Your task to perform on an android device: Open sound settings Image 0: 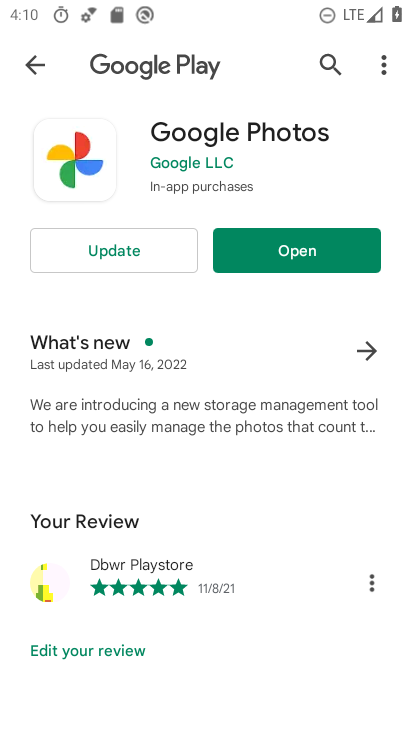
Step 0: press home button
Your task to perform on an android device: Open sound settings Image 1: 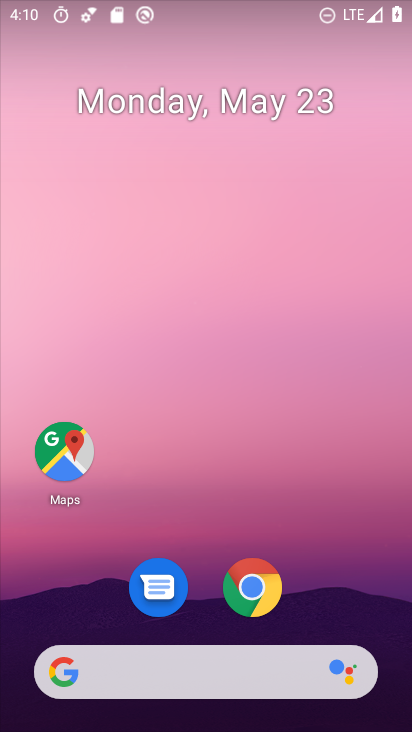
Step 1: drag from (209, 613) to (236, 7)
Your task to perform on an android device: Open sound settings Image 2: 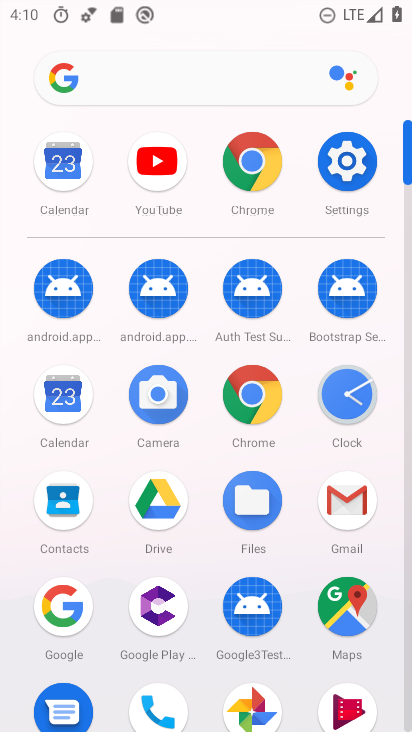
Step 2: click (356, 181)
Your task to perform on an android device: Open sound settings Image 3: 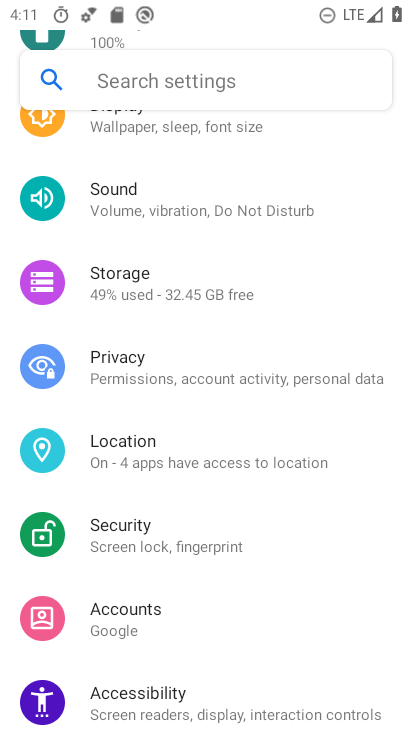
Step 3: click (137, 198)
Your task to perform on an android device: Open sound settings Image 4: 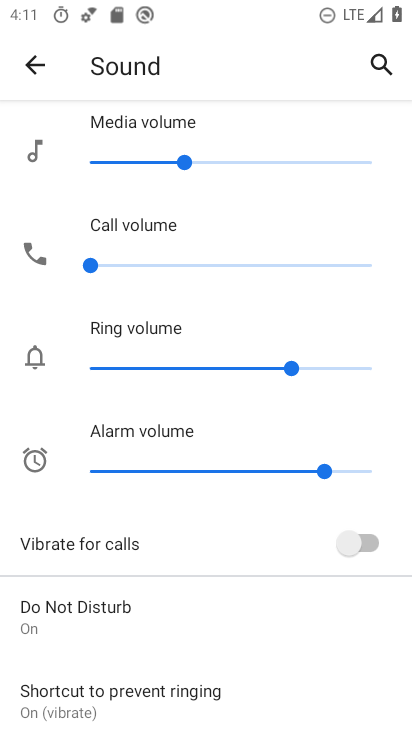
Step 4: task complete